Your task to perform on an android device: Open calendar and show me the second week of next month Image 0: 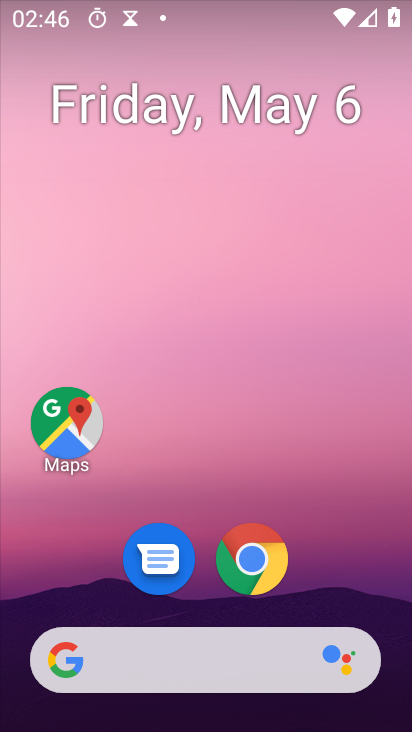
Step 0: drag from (271, 609) to (264, 0)
Your task to perform on an android device: Open calendar and show me the second week of next month Image 1: 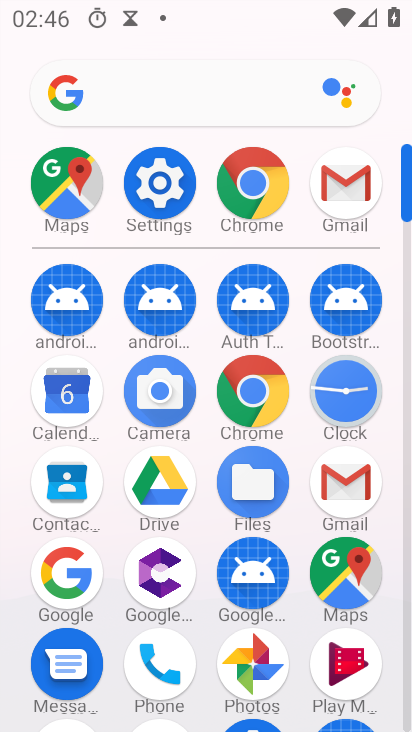
Step 1: click (87, 399)
Your task to perform on an android device: Open calendar and show me the second week of next month Image 2: 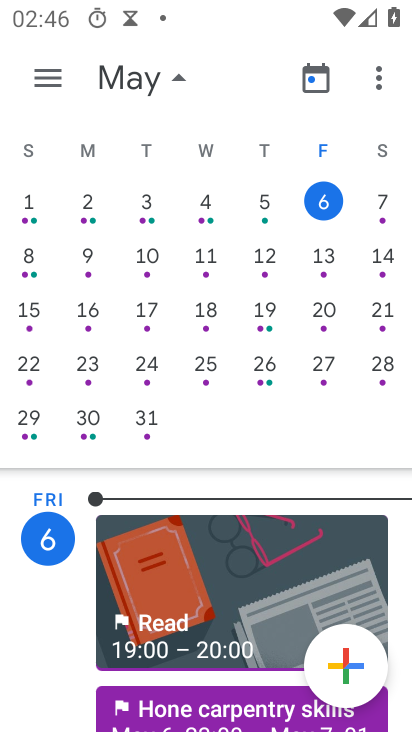
Step 2: drag from (388, 288) to (0, 367)
Your task to perform on an android device: Open calendar and show me the second week of next month Image 3: 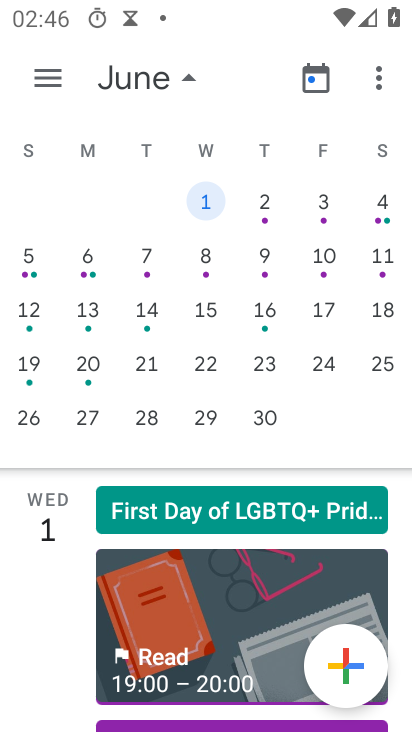
Step 3: click (250, 260)
Your task to perform on an android device: Open calendar and show me the second week of next month Image 4: 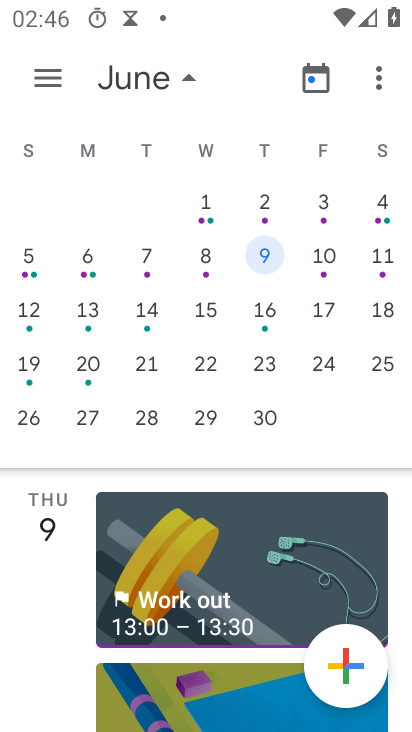
Step 4: click (53, 69)
Your task to perform on an android device: Open calendar and show me the second week of next month Image 5: 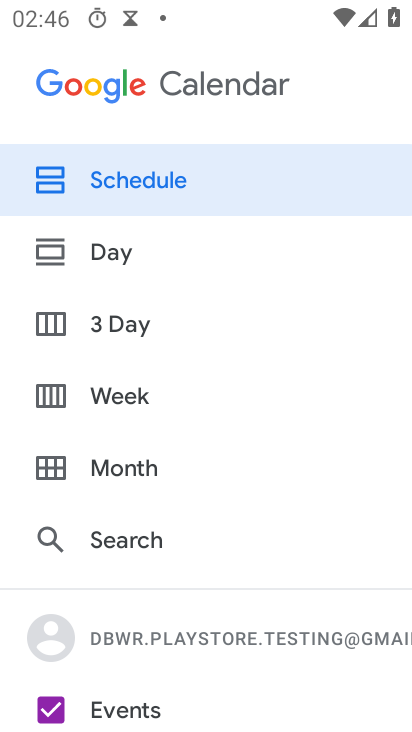
Step 5: click (96, 396)
Your task to perform on an android device: Open calendar and show me the second week of next month Image 6: 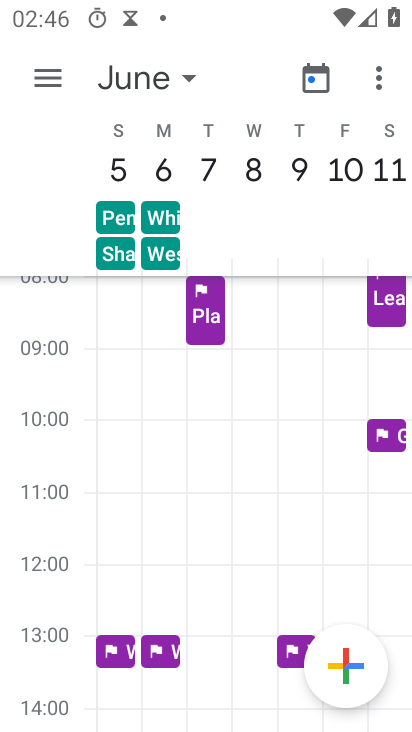
Step 6: task complete